Your task to perform on an android device: Clear the shopping cart on costco. Search for acer predator on costco, select the first entry, add it to the cart, then select checkout. Image 0: 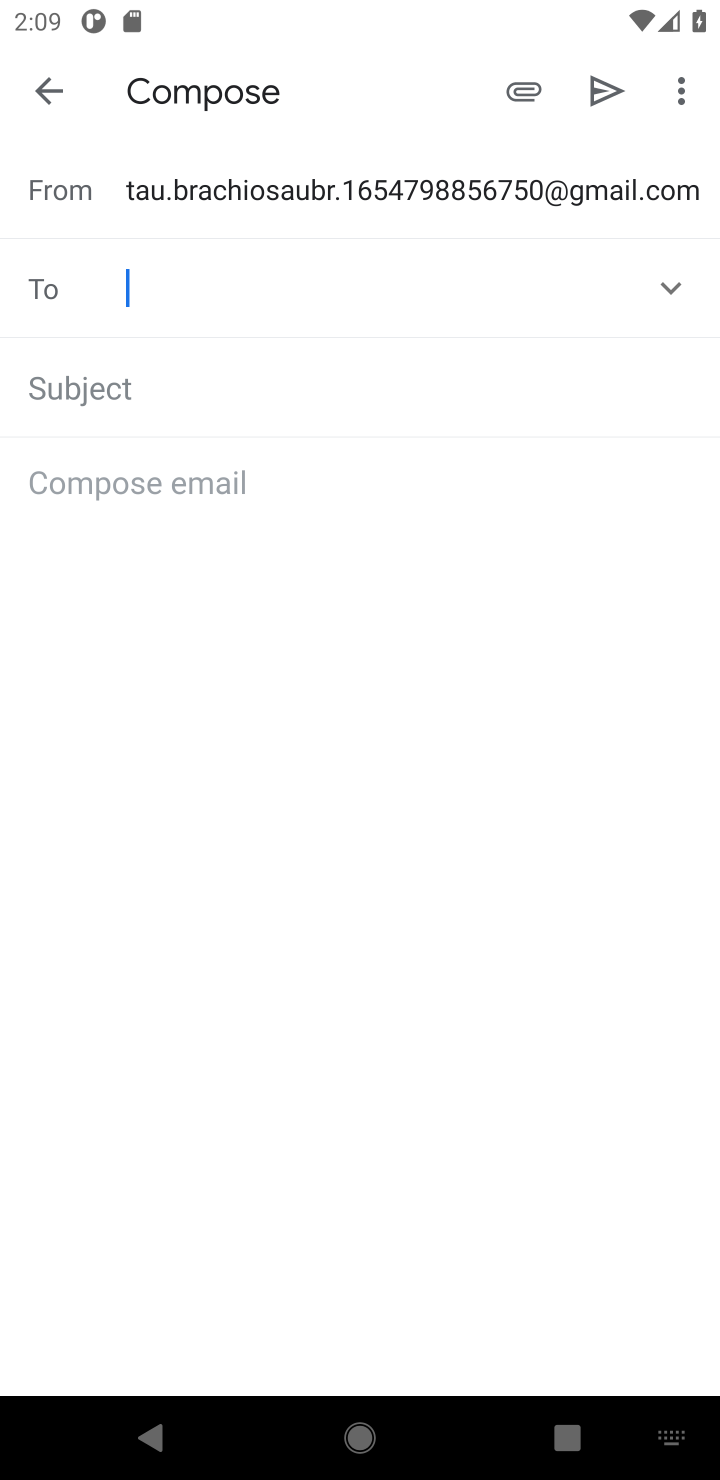
Step 0: press home button
Your task to perform on an android device: Clear the shopping cart on costco. Search for acer predator on costco, select the first entry, add it to the cart, then select checkout. Image 1: 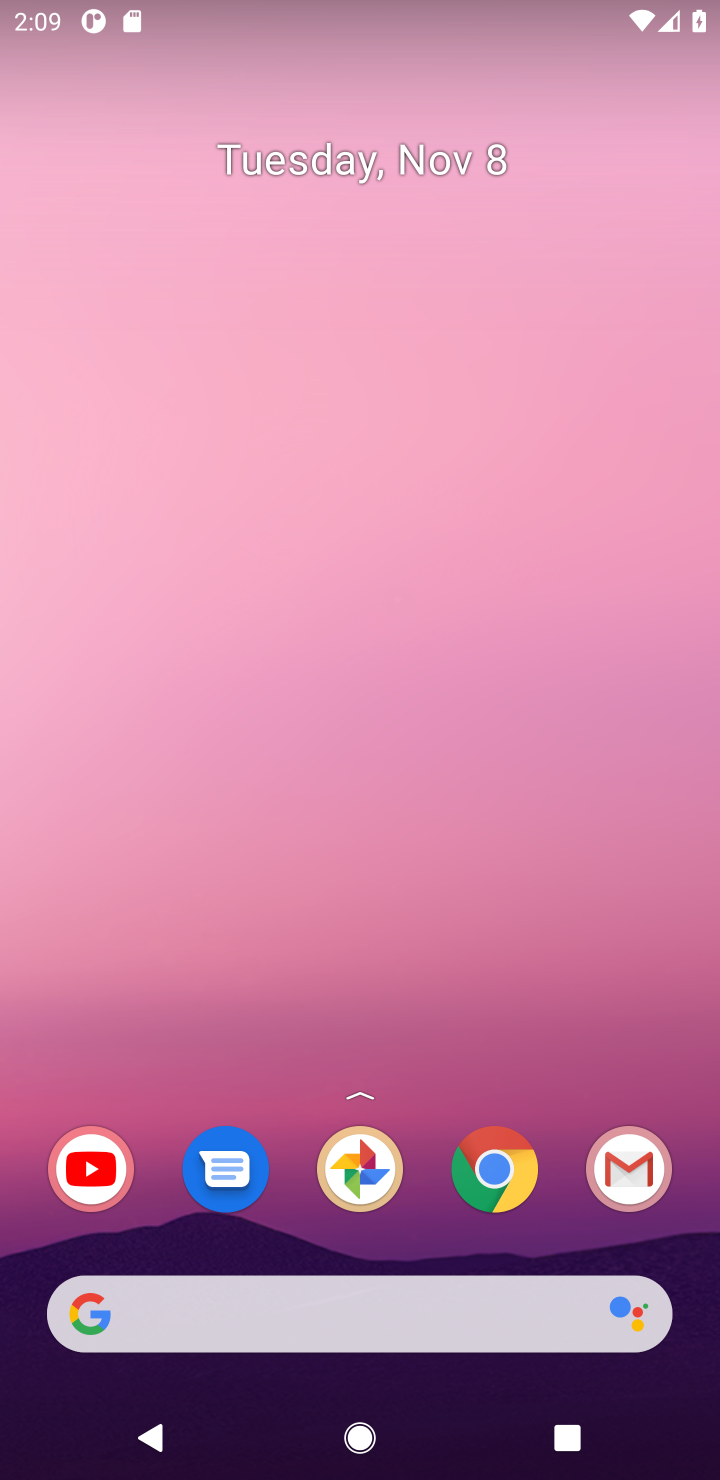
Step 1: click (494, 1145)
Your task to perform on an android device: Clear the shopping cart on costco. Search for acer predator on costco, select the first entry, add it to the cart, then select checkout. Image 2: 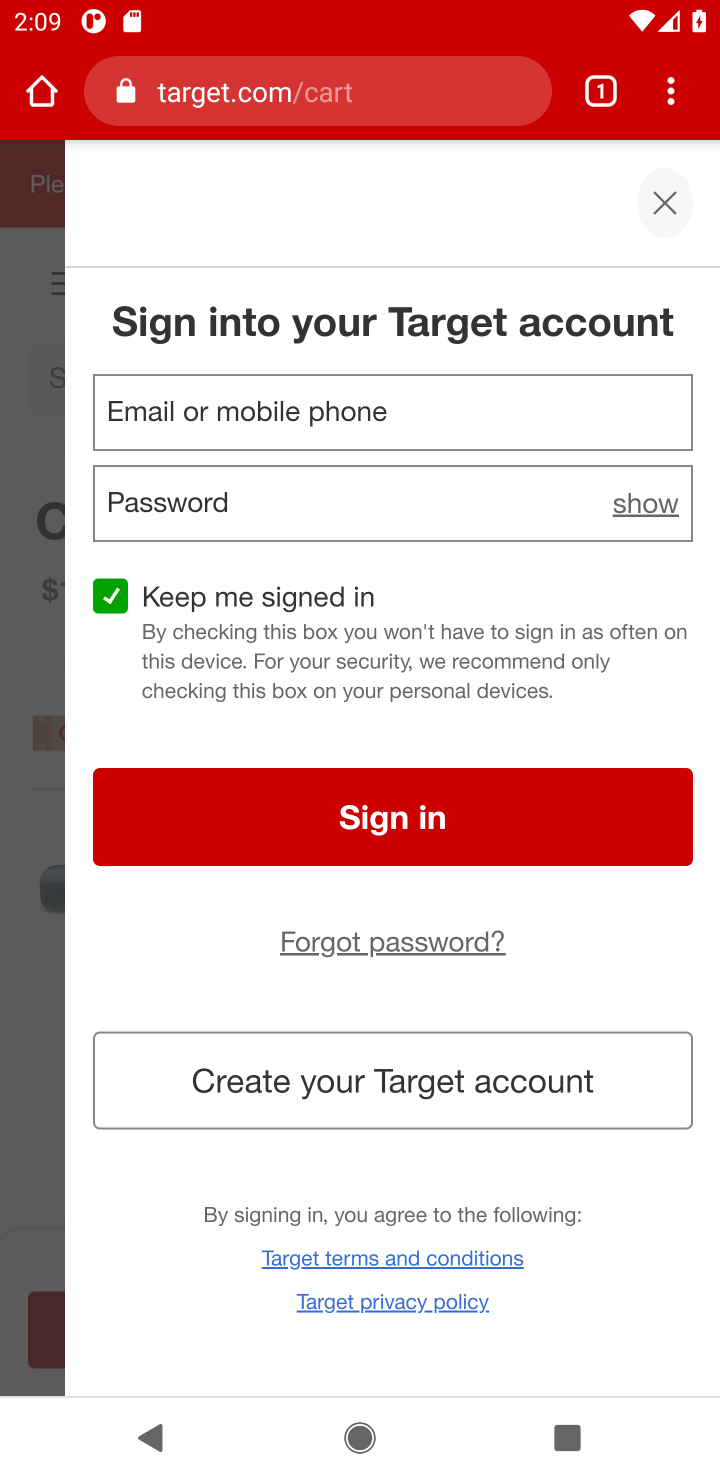
Step 2: click (419, 118)
Your task to perform on an android device: Clear the shopping cart on costco. Search for acer predator on costco, select the first entry, add it to the cart, then select checkout. Image 3: 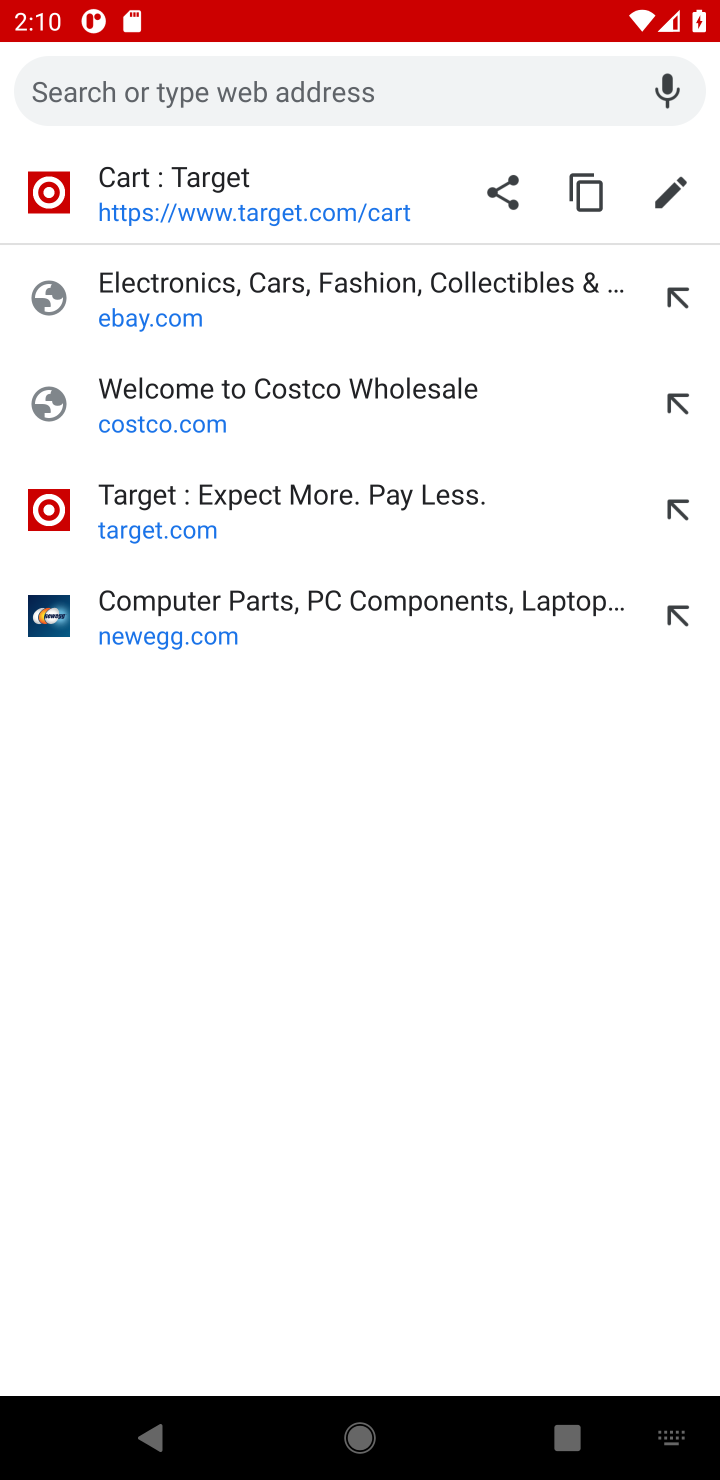
Step 3: type "costco"
Your task to perform on an android device: Clear the shopping cart on costco. Search for acer predator on costco, select the first entry, add it to the cart, then select checkout. Image 4: 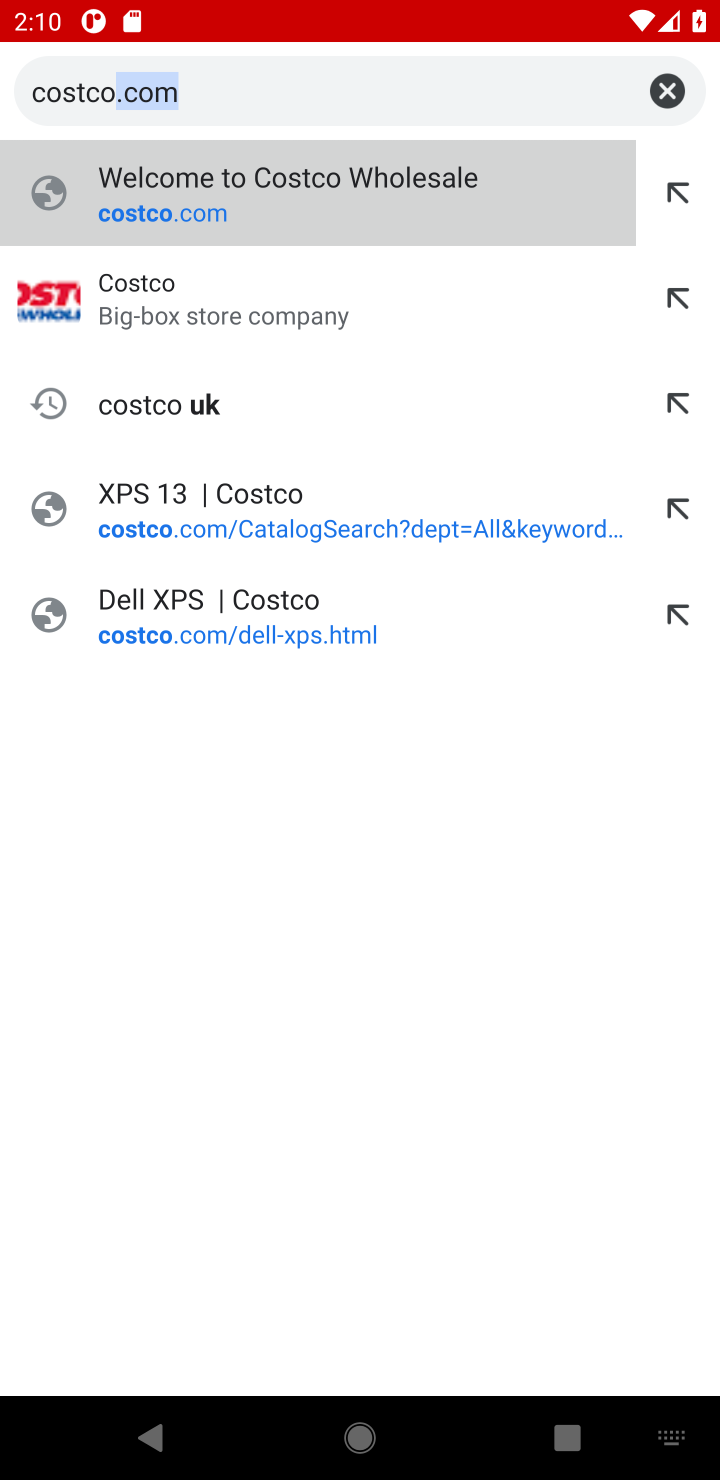
Step 4: press enter
Your task to perform on an android device: Clear the shopping cart on costco. Search for acer predator on costco, select the first entry, add it to the cart, then select checkout. Image 5: 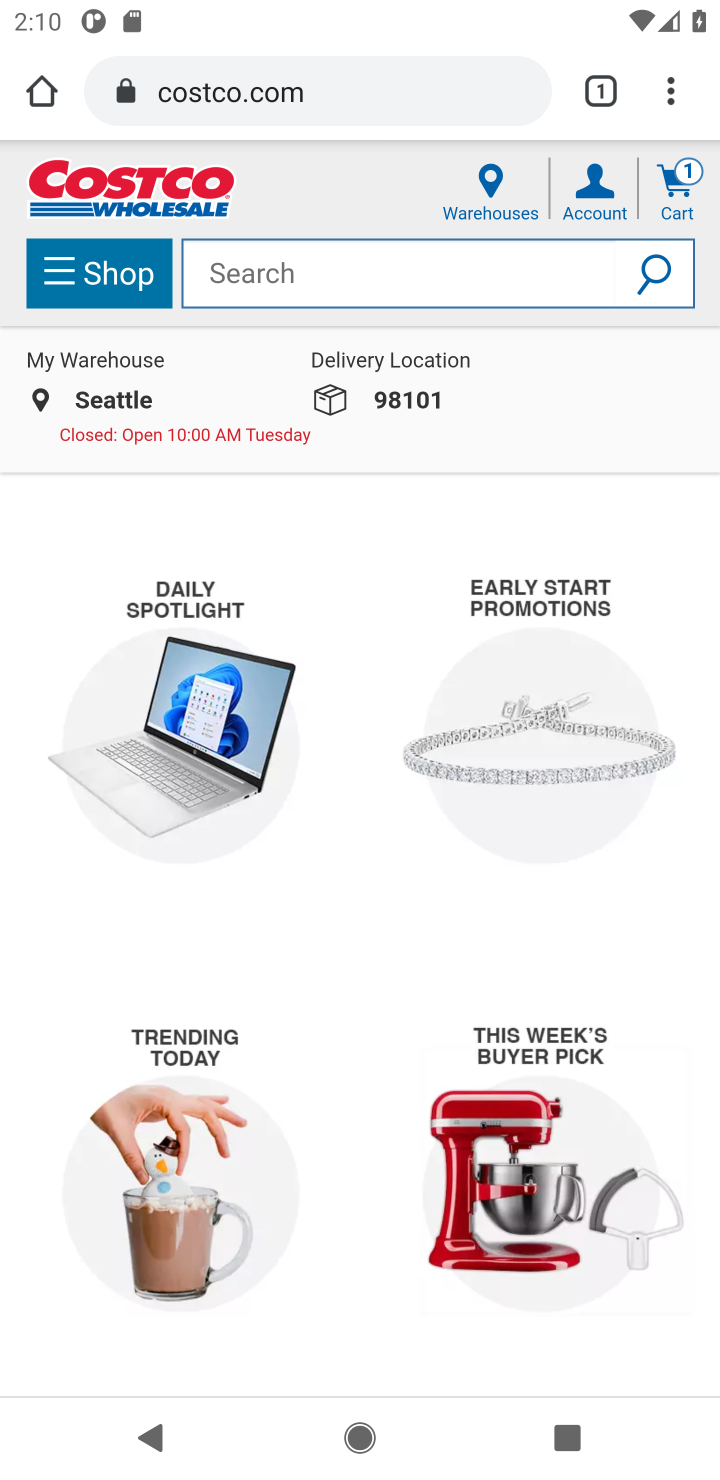
Step 5: click (302, 257)
Your task to perform on an android device: Clear the shopping cart on costco. Search for acer predator on costco, select the first entry, add it to the cart, then select checkout. Image 6: 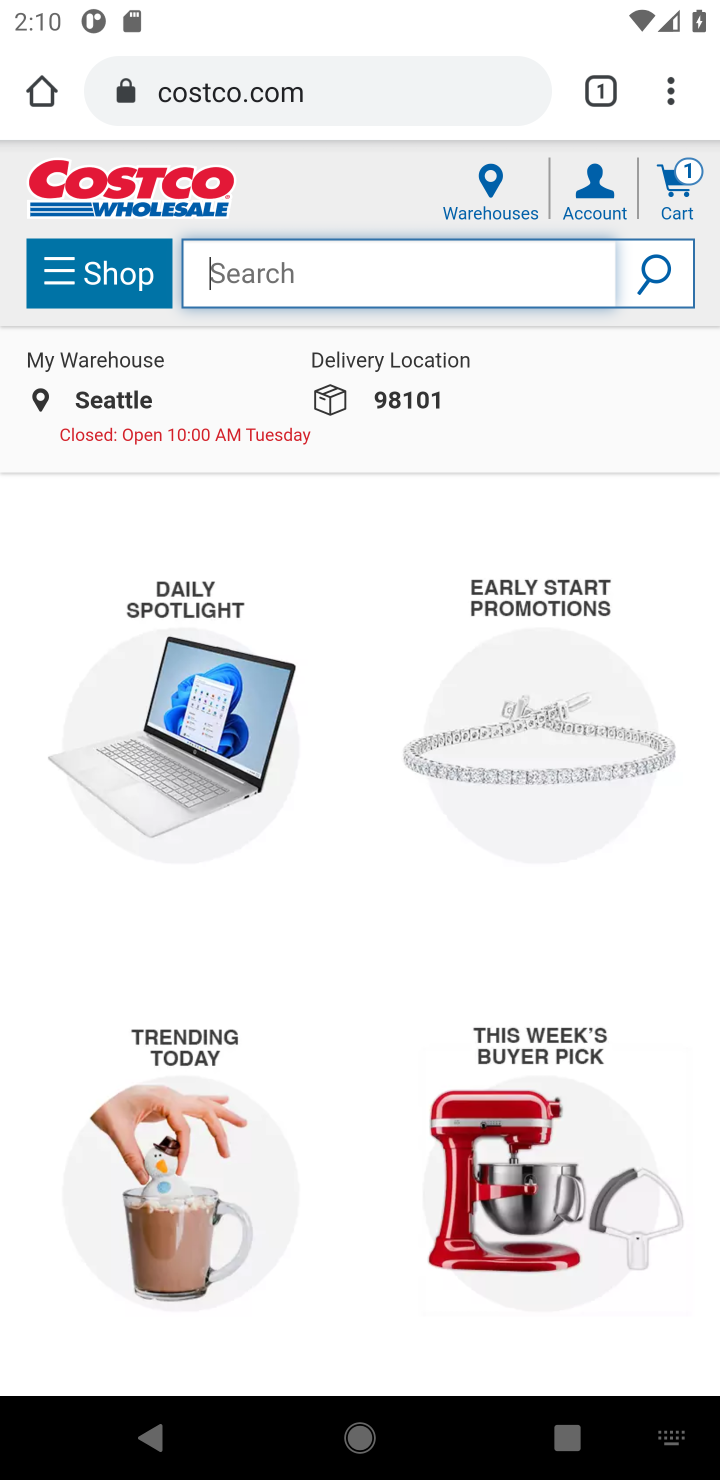
Step 6: type "acer predator"
Your task to perform on an android device: Clear the shopping cart on costco. Search for acer predator on costco, select the first entry, add it to the cart, then select checkout. Image 7: 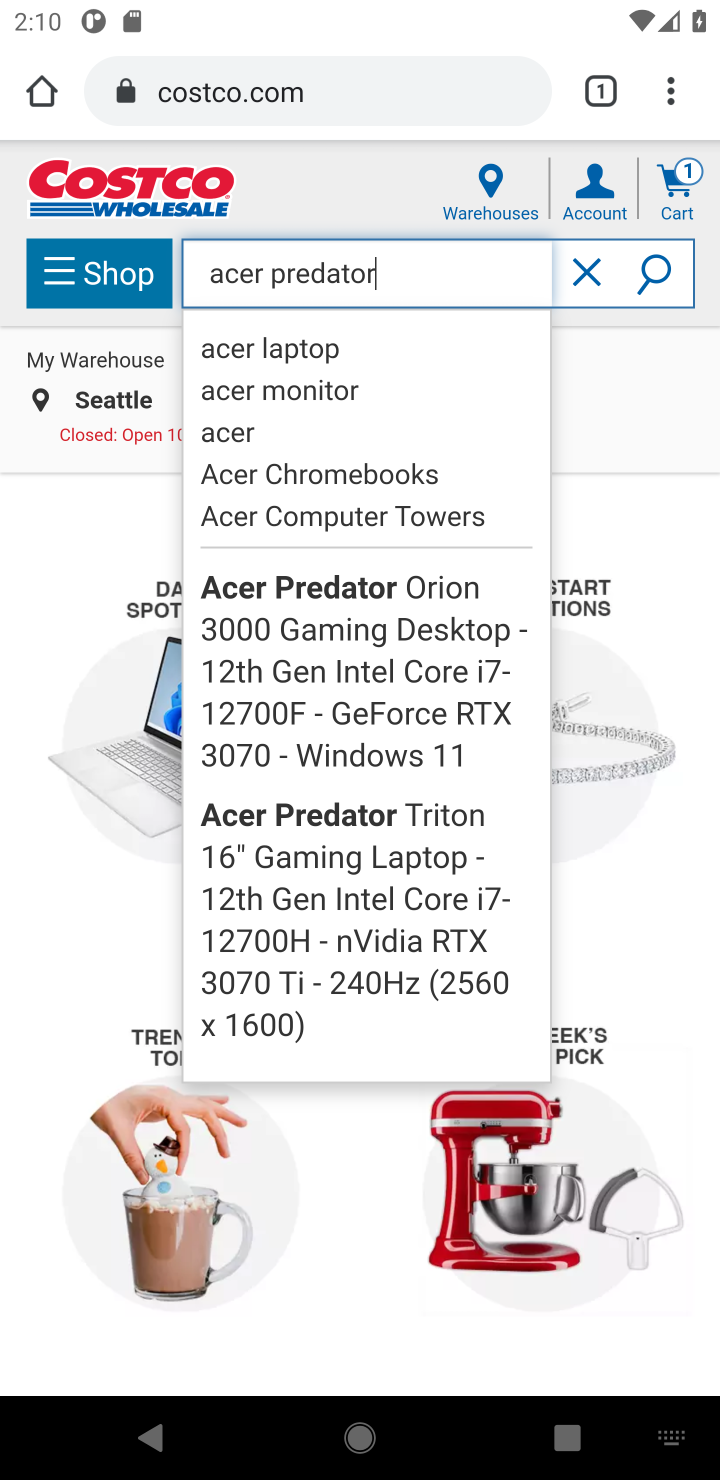
Step 7: press enter
Your task to perform on an android device: Clear the shopping cart on costco. Search for acer predator on costco, select the first entry, add it to the cart, then select checkout. Image 8: 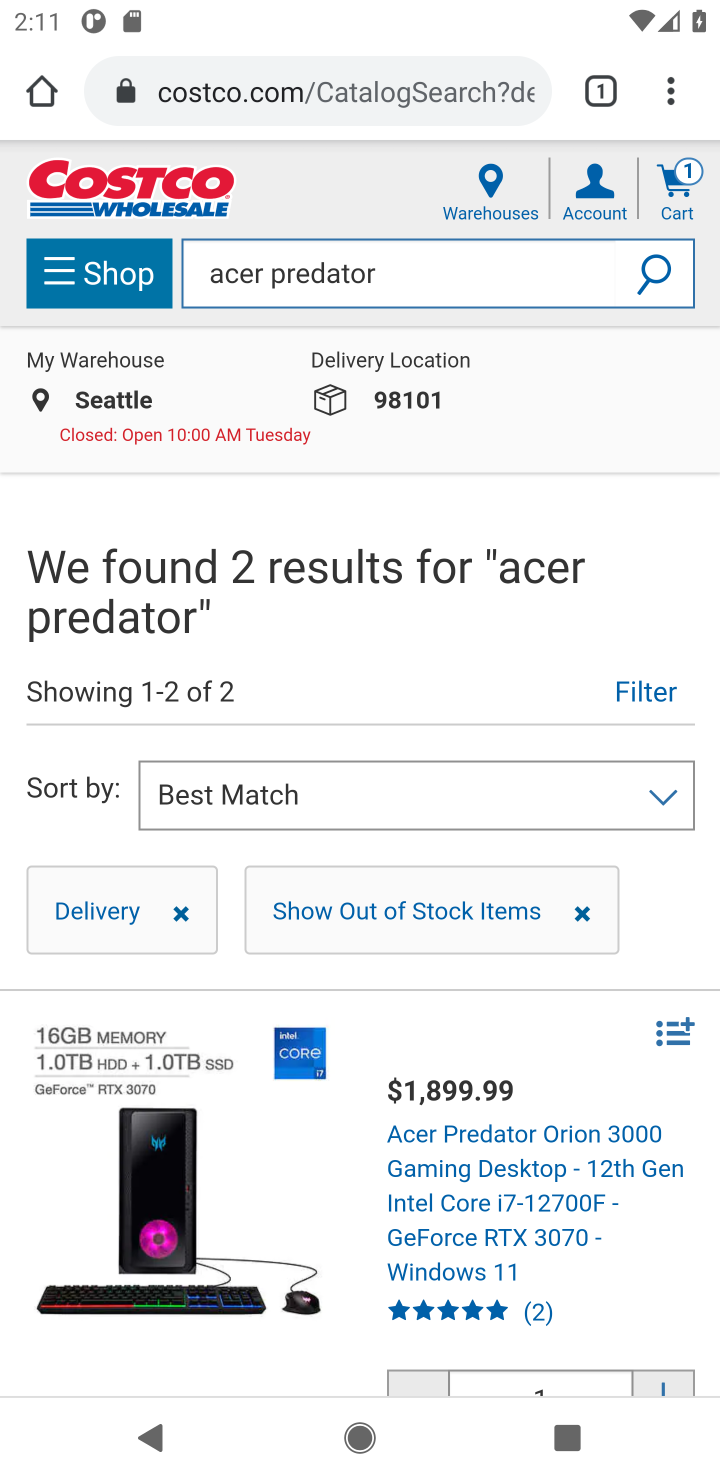
Step 8: click (515, 1204)
Your task to perform on an android device: Clear the shopping cart on costco. Search for acer predator on costco, select the first entry, add it to the cart, then select checkout. Image 9: 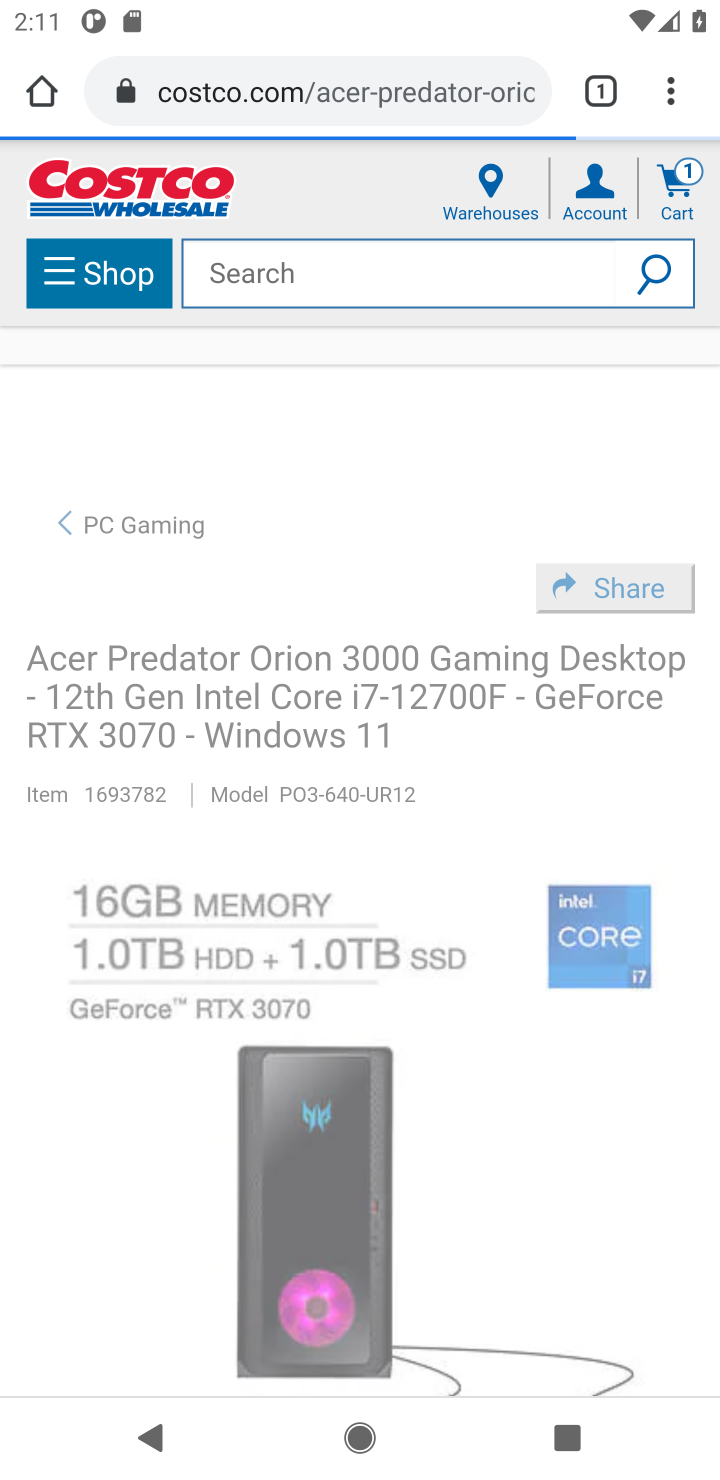
Step 9: drag from (431, 1180) to (310, 556)
Your task to perform on an android device: Clear the shopping cart on costco. Search for acer predator on costco, select the first entry, add it to the cart, then select checkout. Image 10: 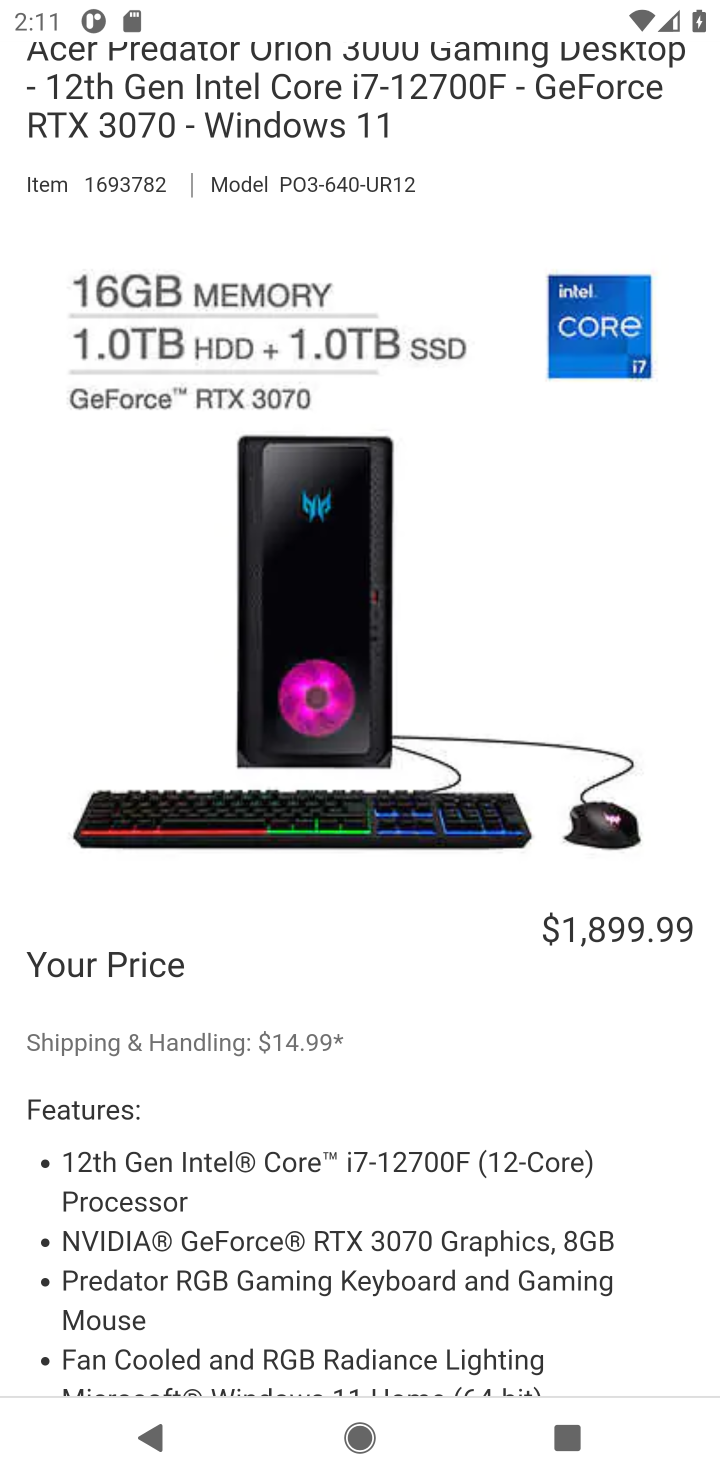
Step 10: drag from (434, 1100) to (323, 628)
Your task to perform on an android device: Clear the shopping cart on costco. Search for acer predator on costco, select the first entry, add it to the cart, then select checkout. Image 11: 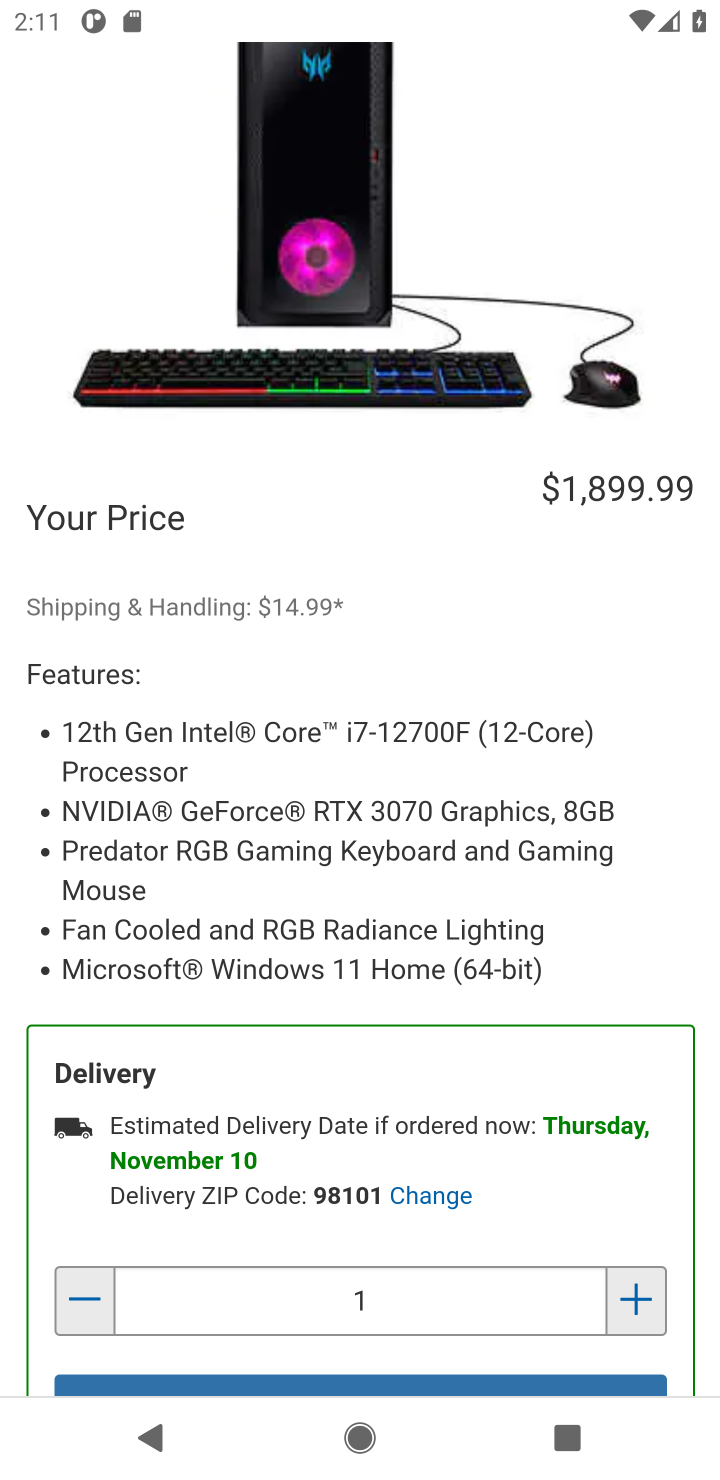
Step 11: drag from (413, 935) to (237, 397)
Your task to perform on an android device: Clear the shopping cart on costco. Search for acer predator on costco, select the first entry, add it to the cart, then select checkout. Image 12: 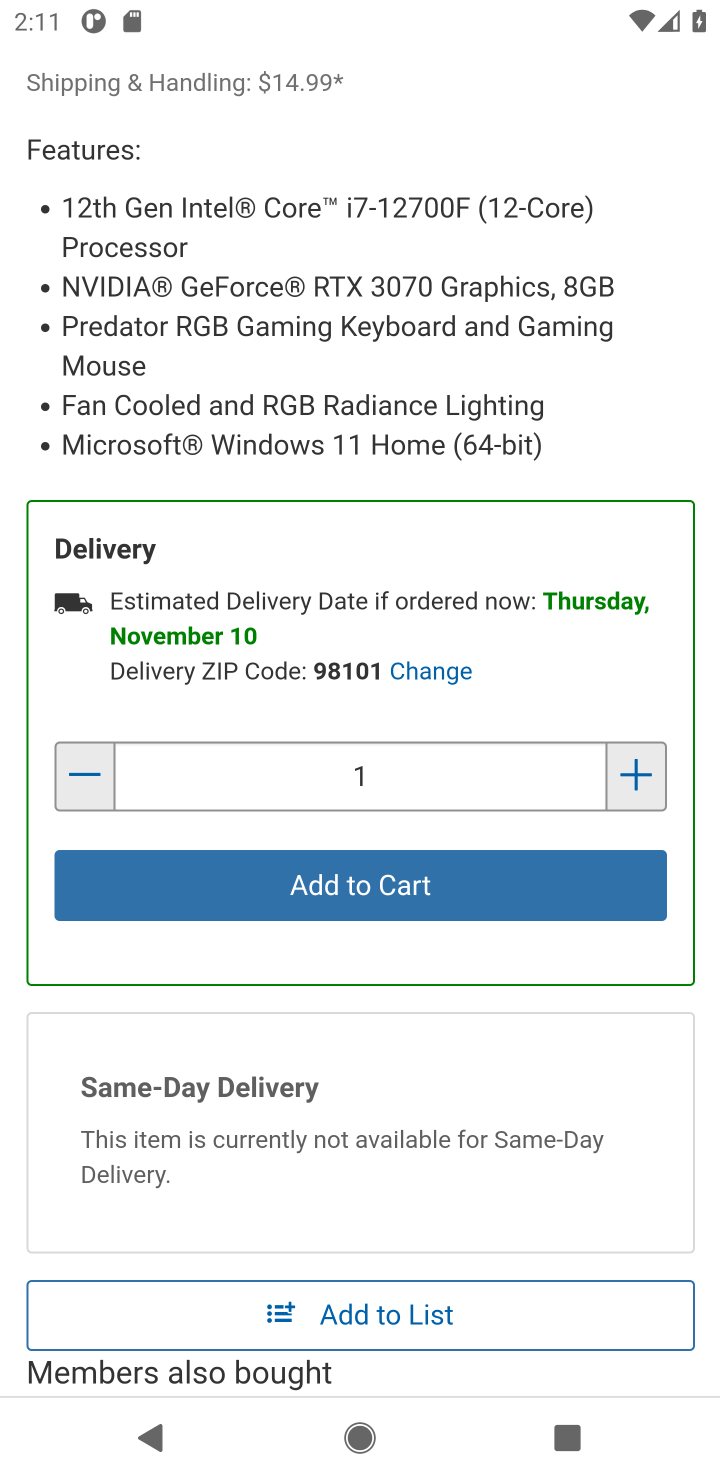
Step 12: click (318, 893)
Your task to perform on an android device: Clear the shopping cart on costco. Search for acer predator on costco, select the first entry, add it to the cart, then select checkout. Image 13: 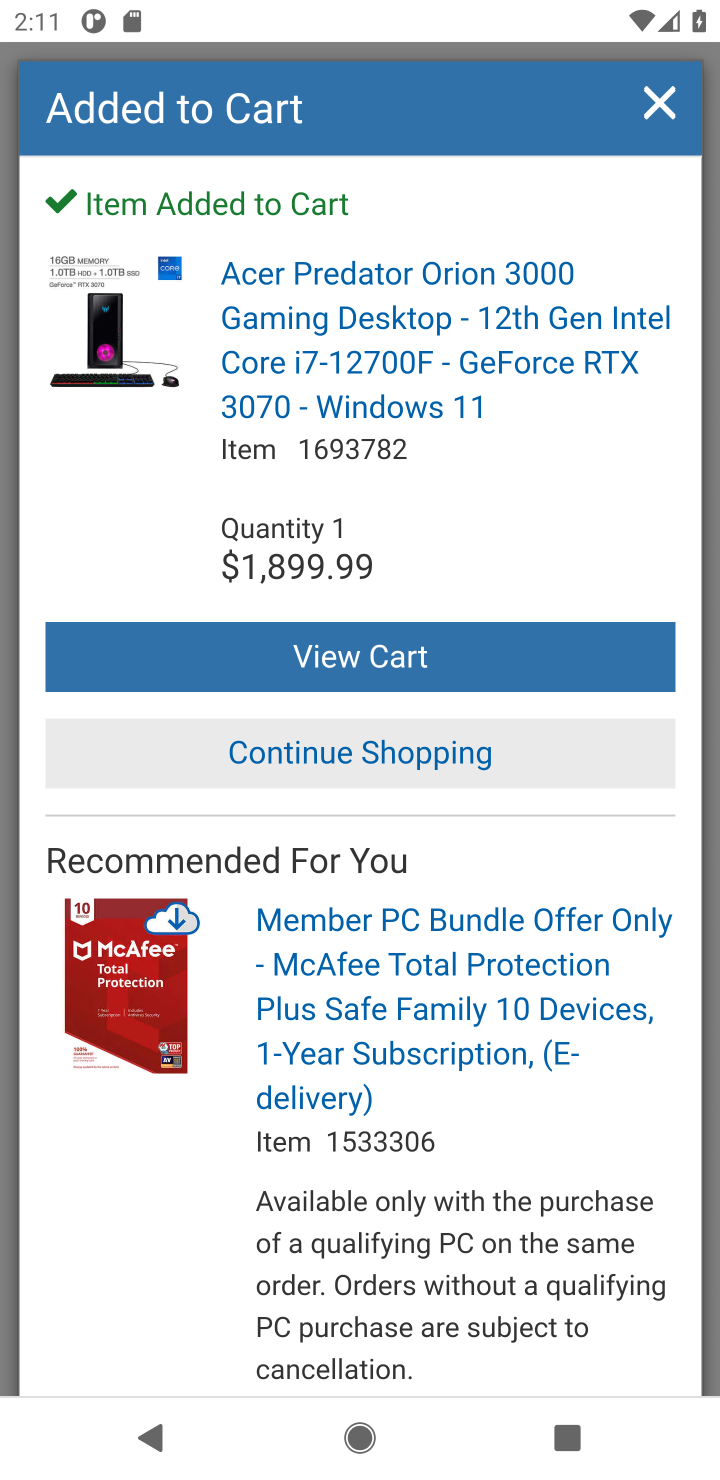
Step 13: click (396, 649)
Your task to perform on an android device: Clear the shopping cart on costco. Search for acer predator on costco, select the first entry, add it to the cart, then select checkout. Image 14: 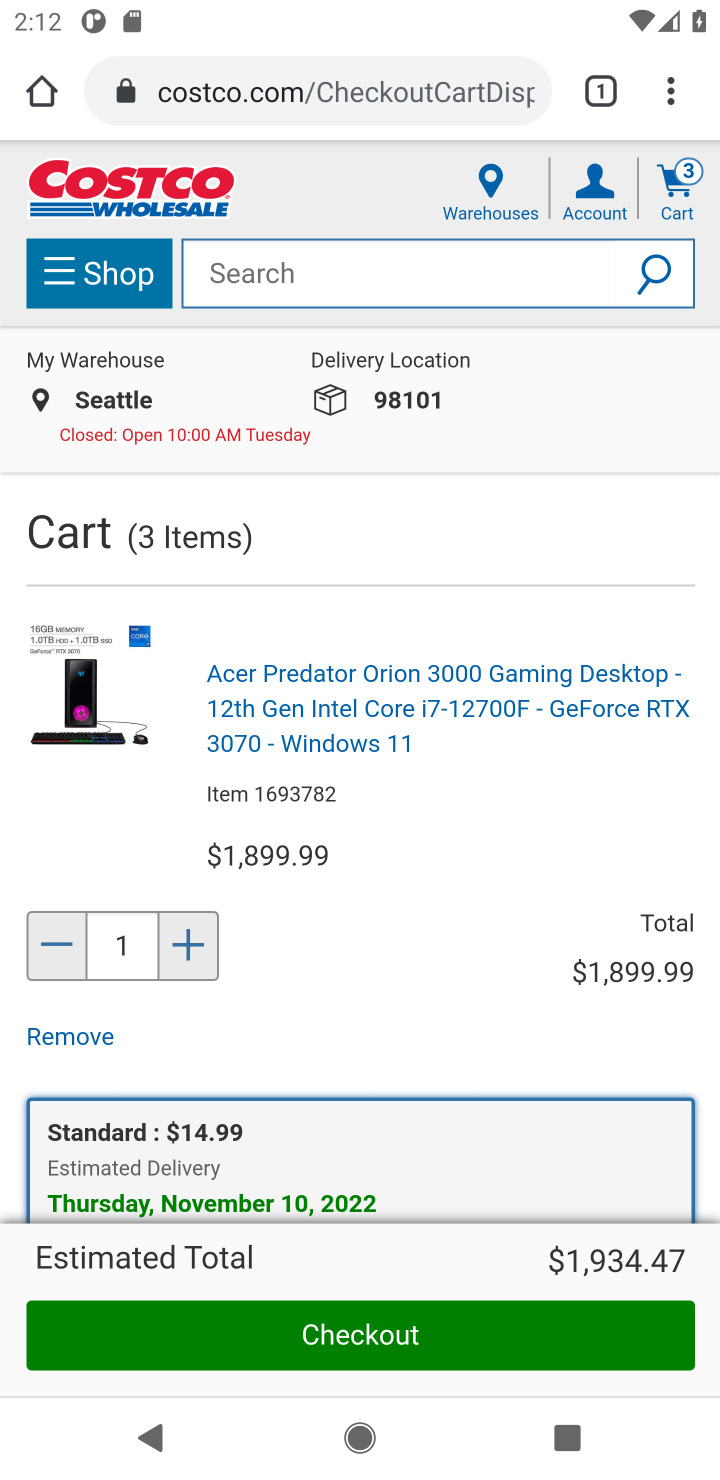
Step 14: click (408, 1255)
Your task to perform on an android device: Clear the shopping cart on costco. Search for acer predator on costco, select the first entry, add it to the cart, then select checkout. Image 15: 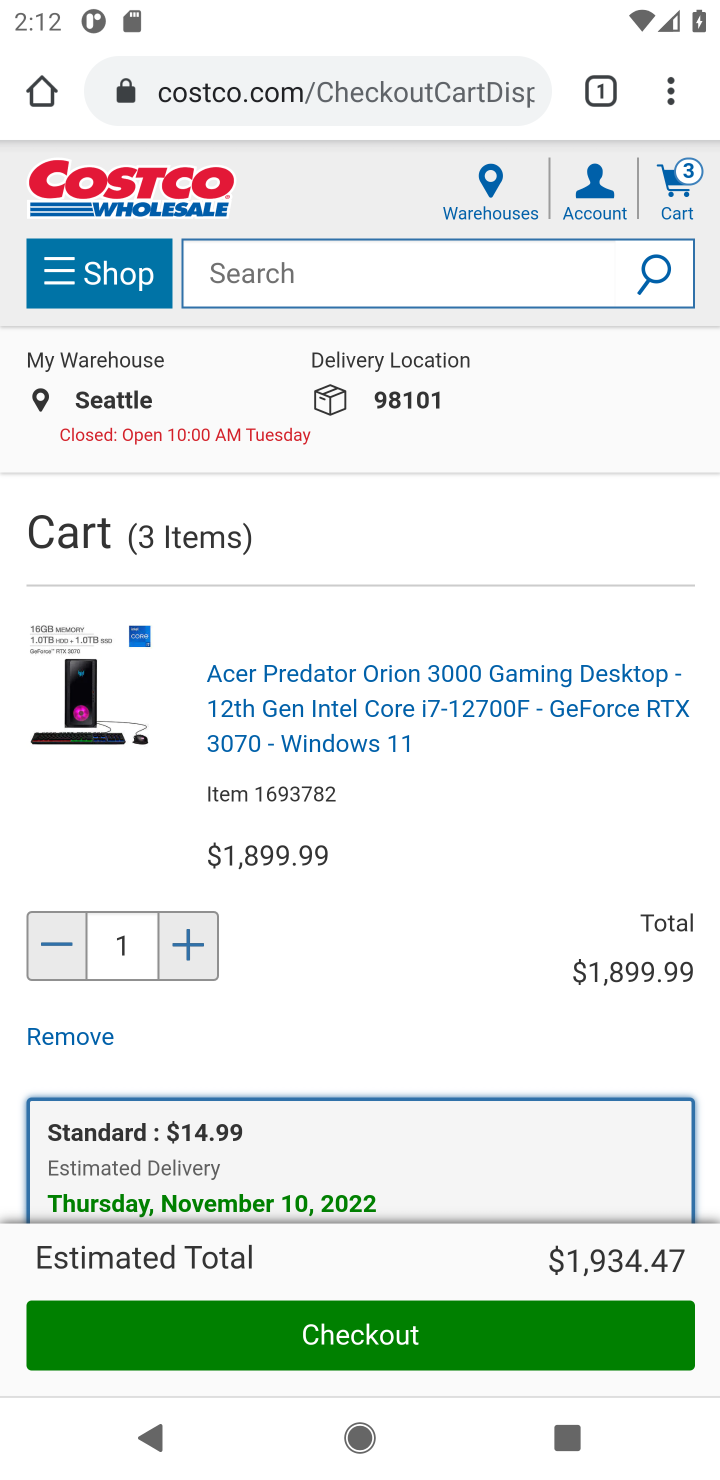
Step 15: click (335, 1336)
Your task to perform on an android device: Clear the shopping cart on costco. Search for acer predator on costco, select the first entry, add it to the cart, then select checkout. Image 16: 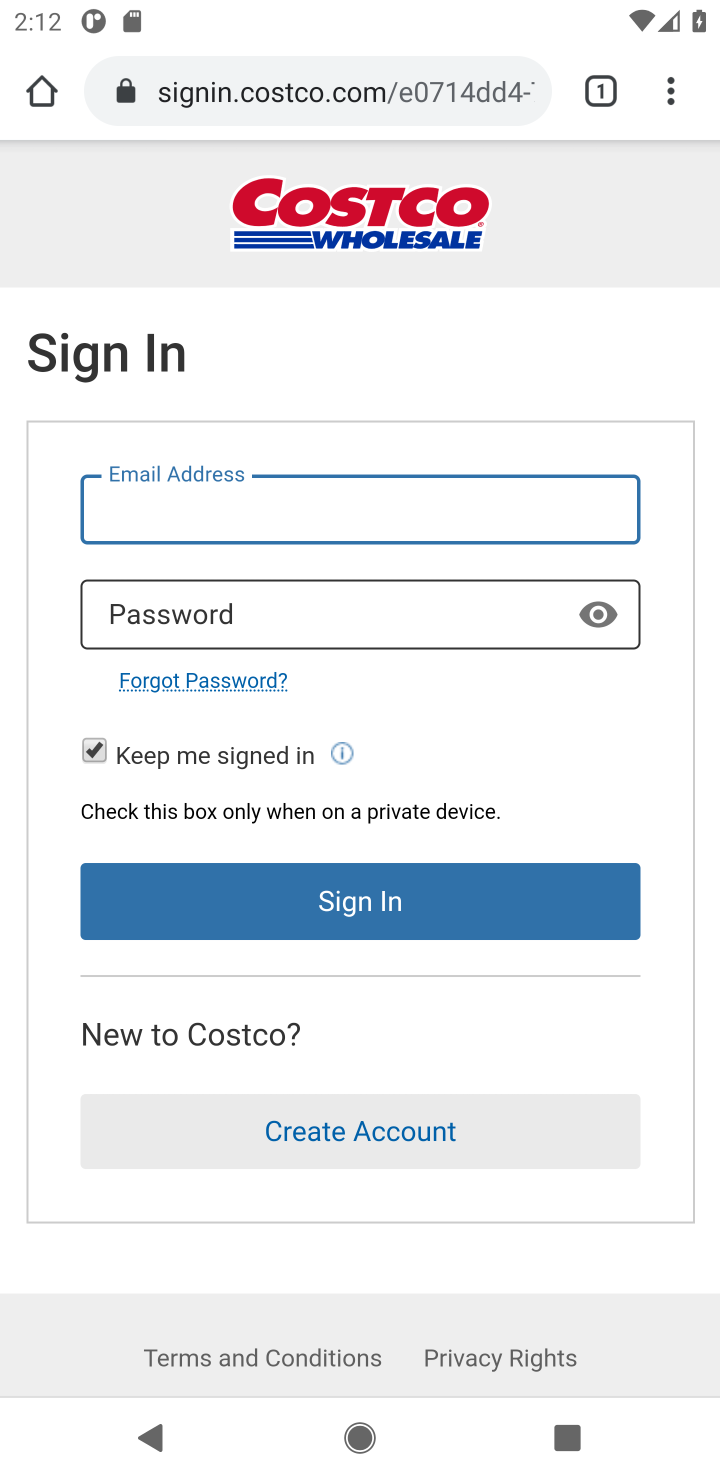
Step 16: task complete